Your task to perform on an android device: Show me the alarms in the clock app Image 0: 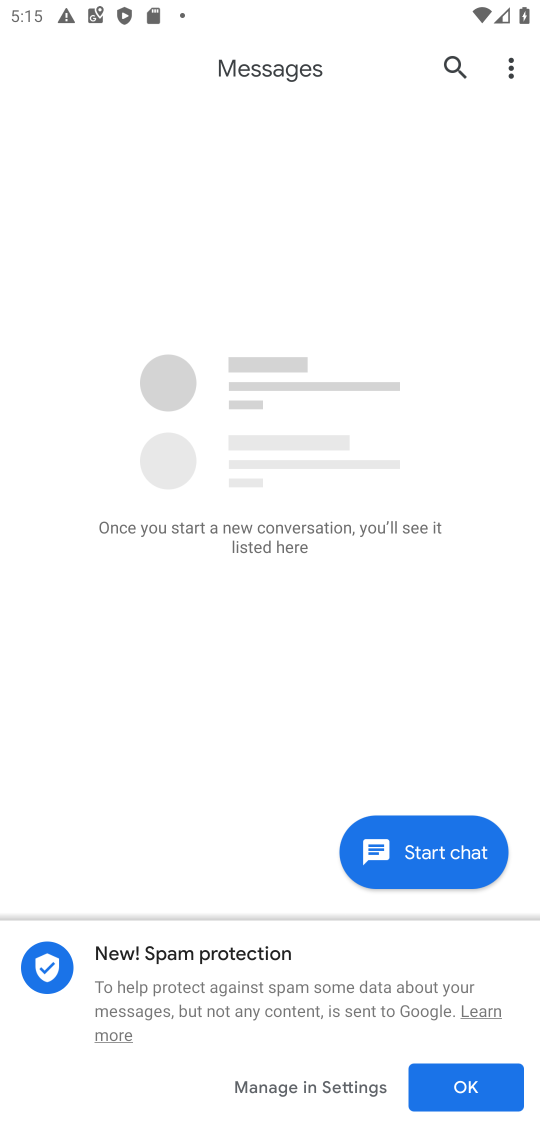
Step 0: press home button
Your task to perform on an android device: Show me the alarms in the clock app Image 1: 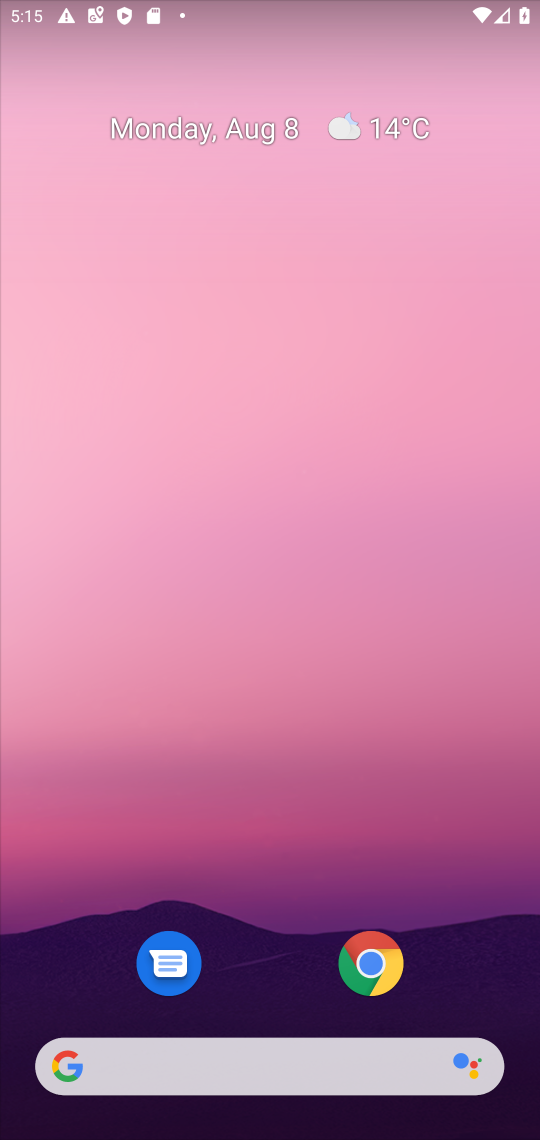
Step 1: drag from (243, 887) to (179, 53)
Your task to perform on an android device: Show me the alarms in the clock app Image 2: 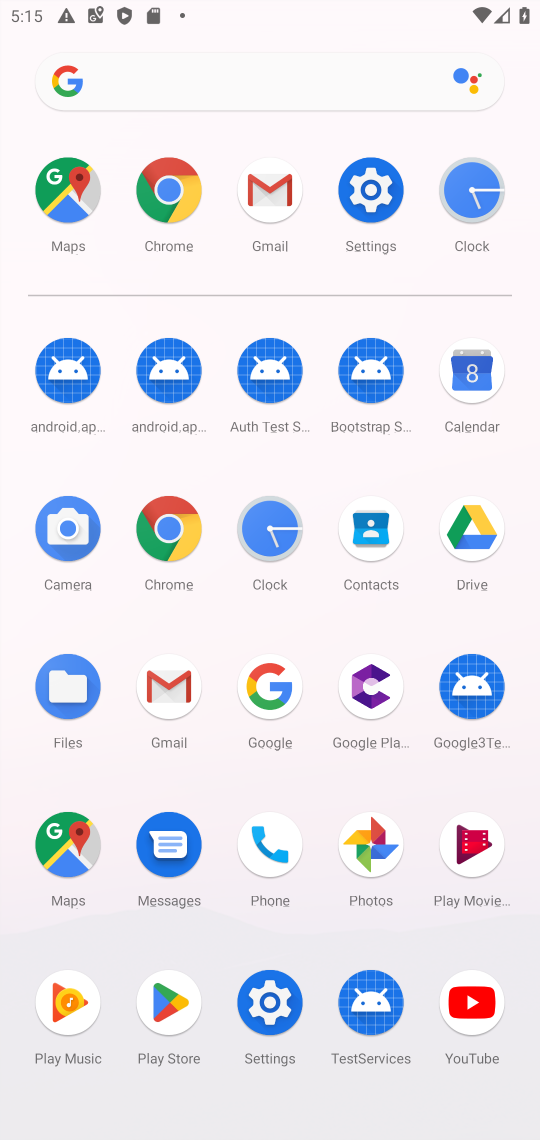
Step 2: click (263, 516)
Your task to perform on an android device: Show me the alarms in the clock app Image 3: 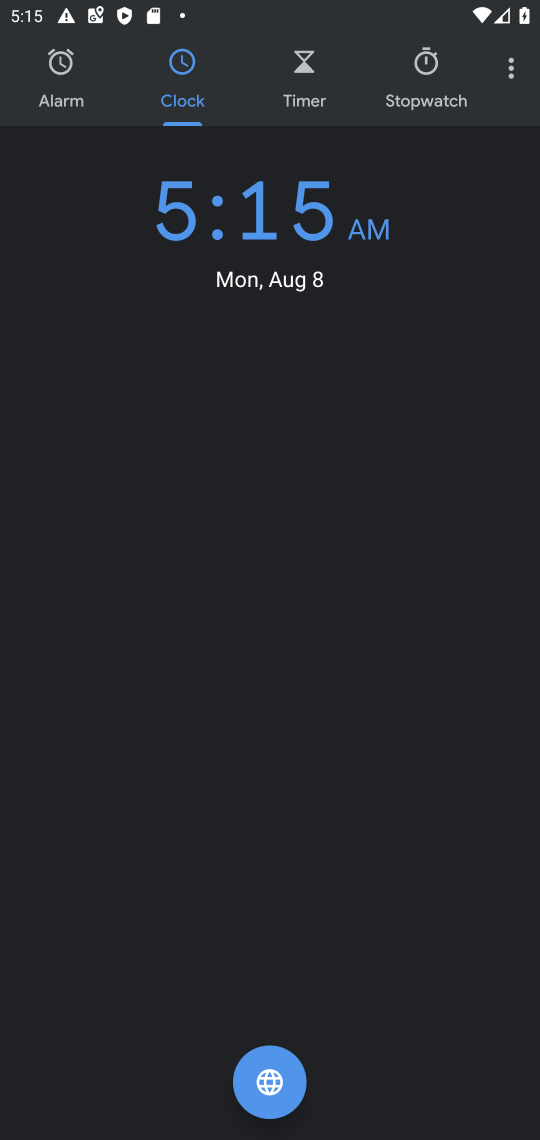
Step 3: click (78, 81)
Your task to perform on an android device: Show me the alarms in the clock app Image 4: 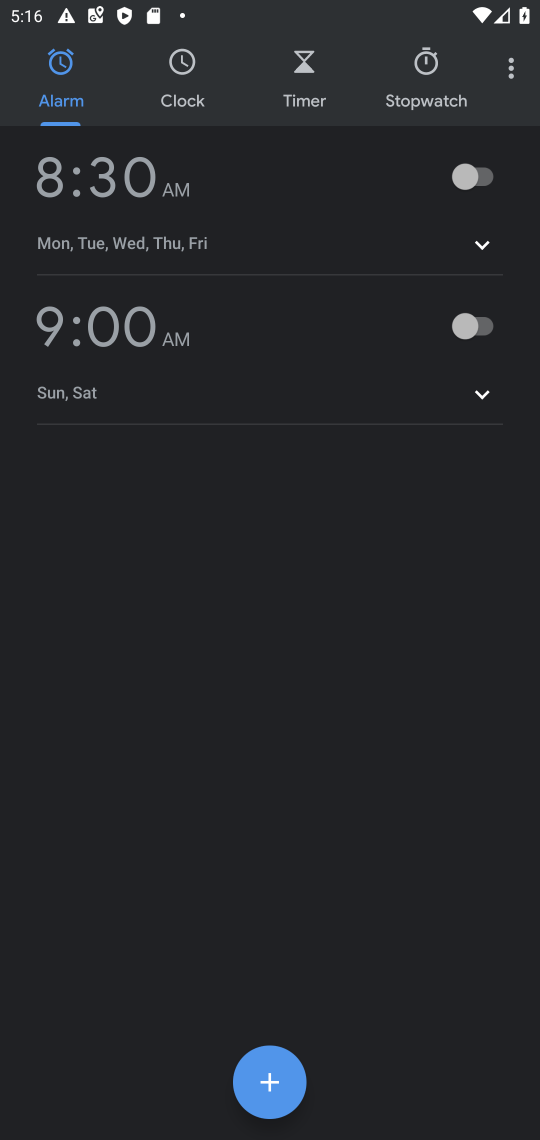
Step 4: task complete